Your task to perform on an android device: toggle notification dots Image 0: 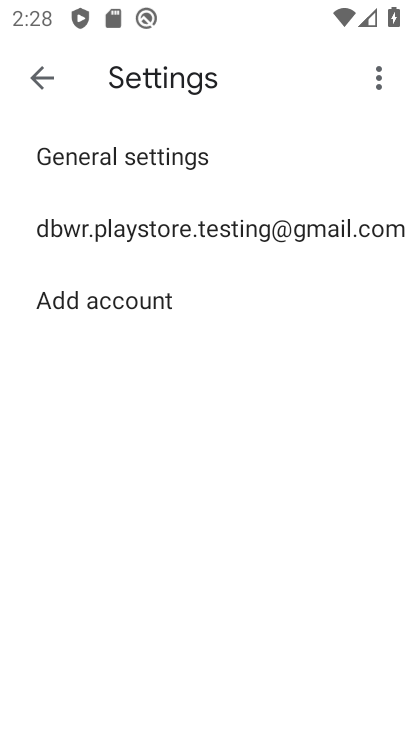
Step 0: press home button
Your task to perform on an android device: toggle notification dots Image 1: 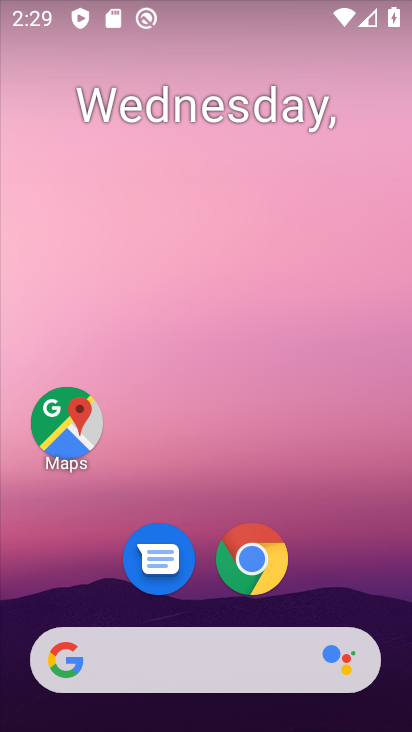
Step 1: drag from (293, 710) to (280, 190)
Your task to perform on an android device: toggle notification dots Image 2: 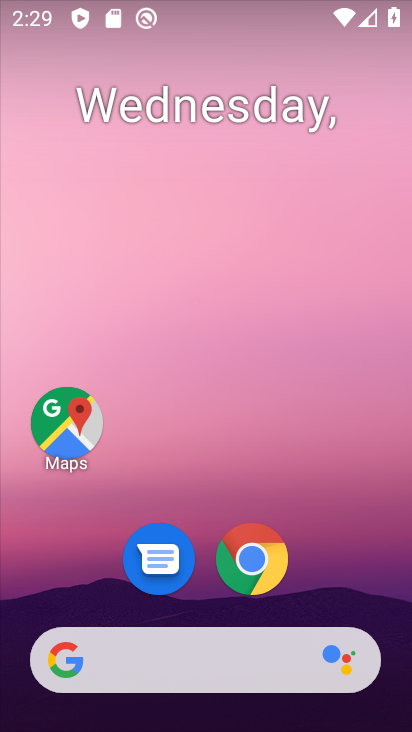
Step 2: drag from (265, 688) to (228, 102)
Your task to perform on an android device: toggle notification dots Image 3: 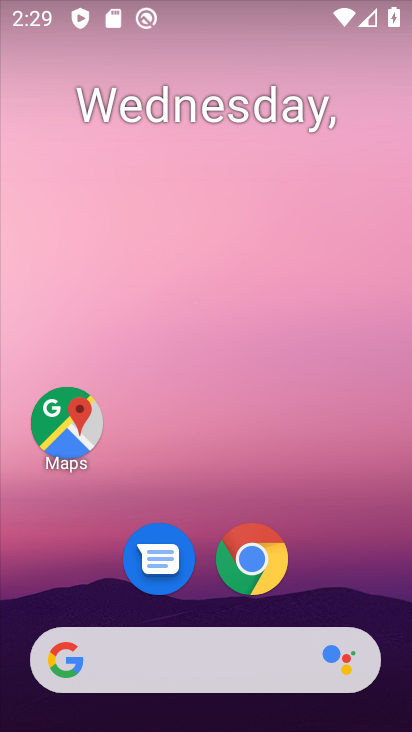
Step 3: drag from (257, 696) to (243, 150)
Your task to perform on an android device: toggle notification dots Image 4: 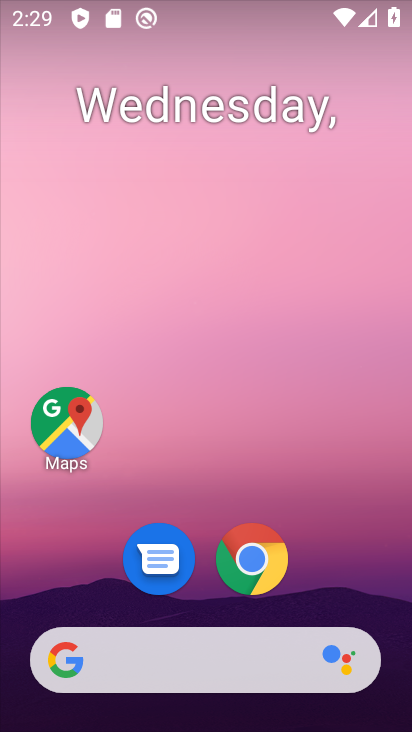
Step 4: drag from (237, 622) to (225, 68)
Your task to perform on an android device: toggle notification dots Image 5: 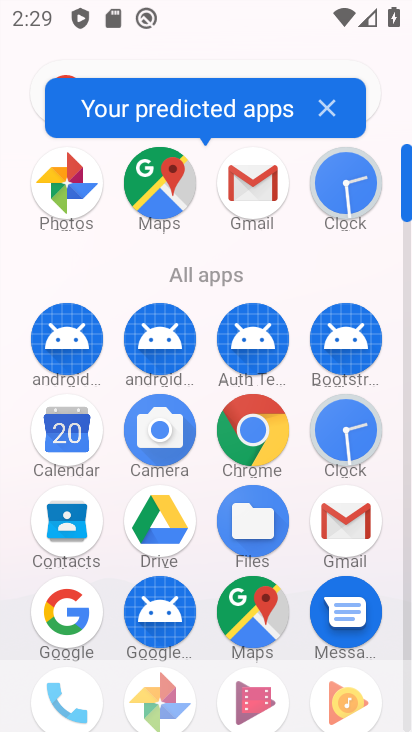
Step 5: drag from (122, 573) to (133, 220)
Your task to perform on an android device: toggle notification dots Image 6: 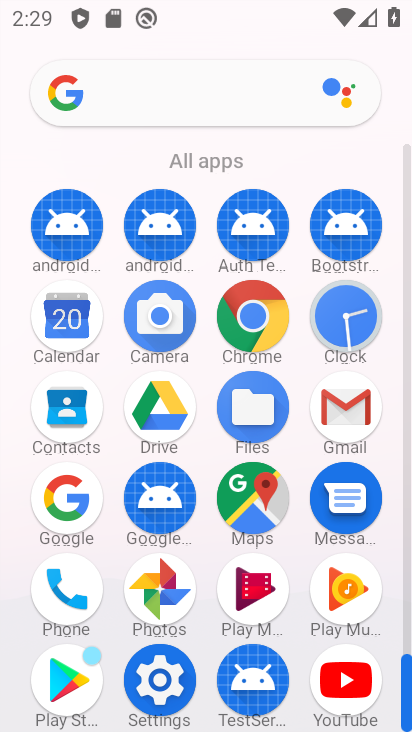
Step 6: click (157, 660)
Your task to perform on an android device: toggle notification dots Image 7: 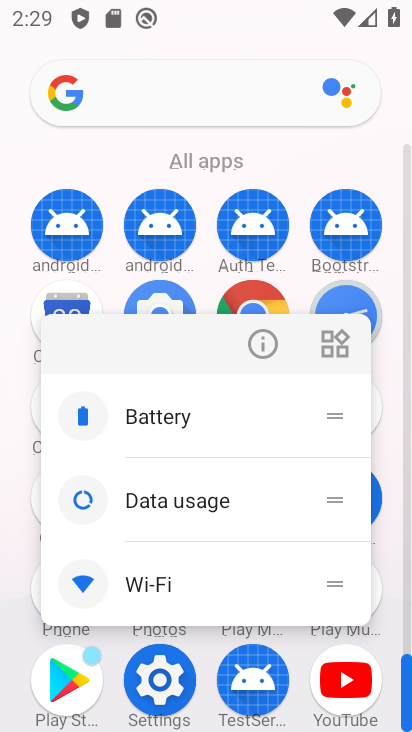
Step 7: click (158, 653)
Your task to perform on an android device: toggle notification dots Image 8: 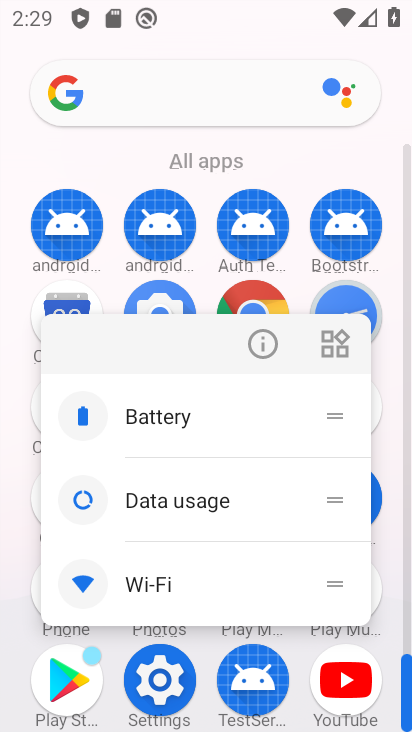
Step 8: click (158, 658)
Your task to perform on an android device: toggle notification dots Image 9: 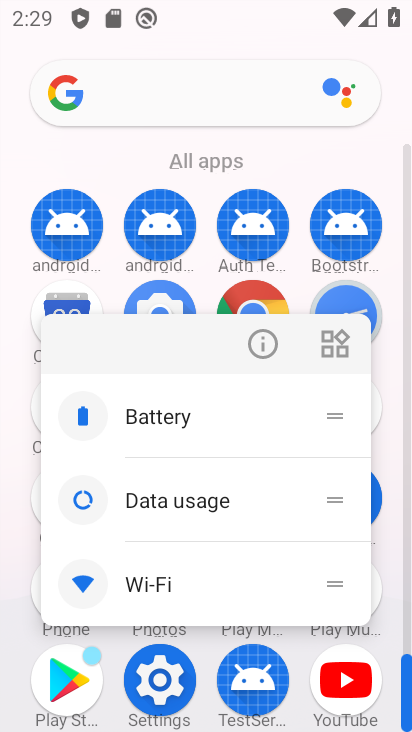
Step 9: click (158, 658)
Your task to perform on an android device: toggle notification dots Image 10: 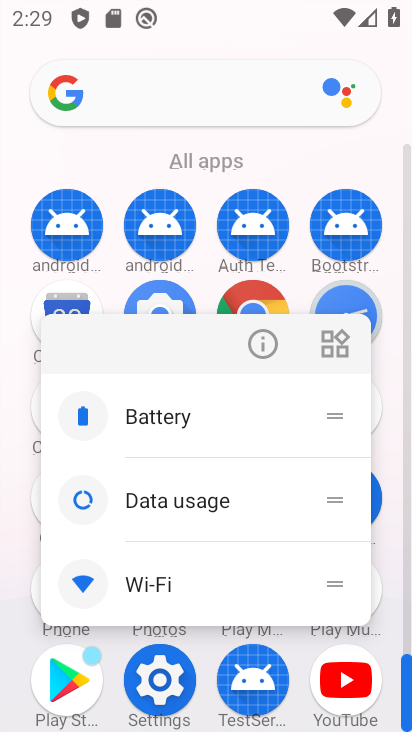
Step 10: click (158, 658)
Your task to perform on an android device: toggle notification dots Image 11: 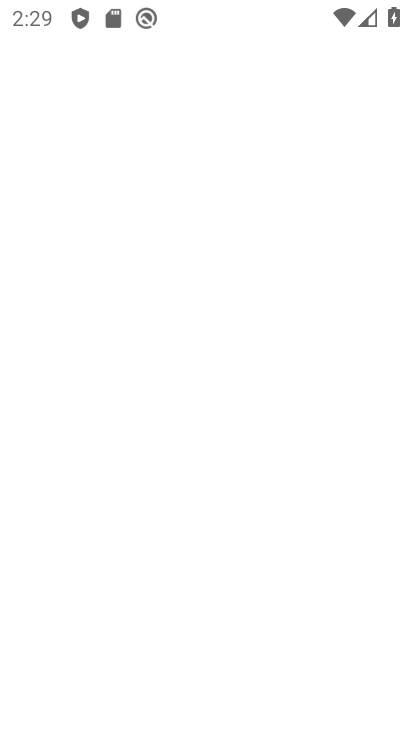
Step 11: drag from (173, 568) to (262, 439)
Your task to perform on an android device: toggle notification dots Image 12: 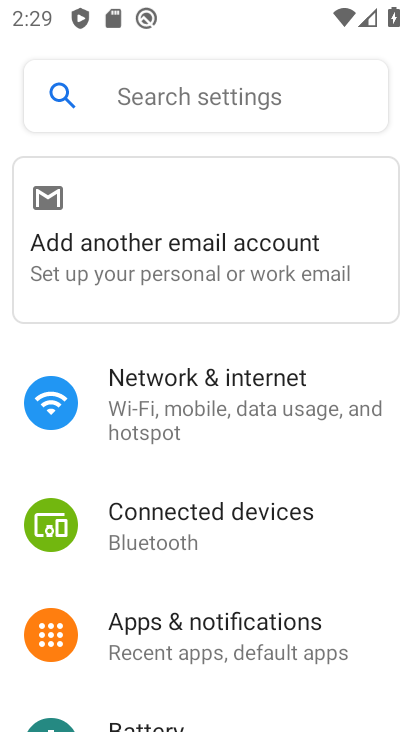
Step 12: click (201, 119)
Your task to perform on an android device: toggle notification dots Image 13: 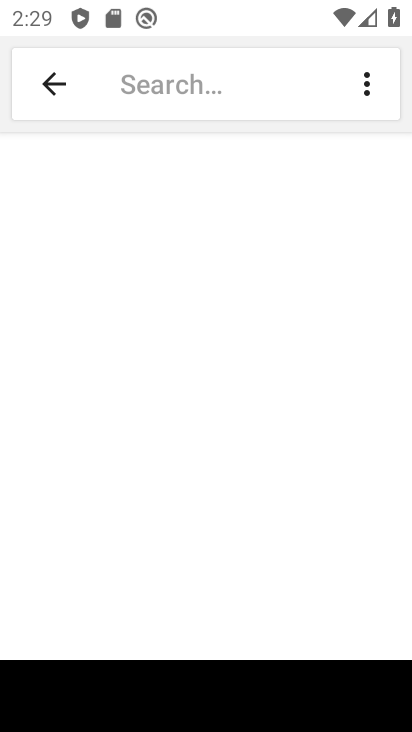
Step 13: drag from (388, 701) to (375, 561)
Your task to perform on an android device: toggle notification dots Image 14: 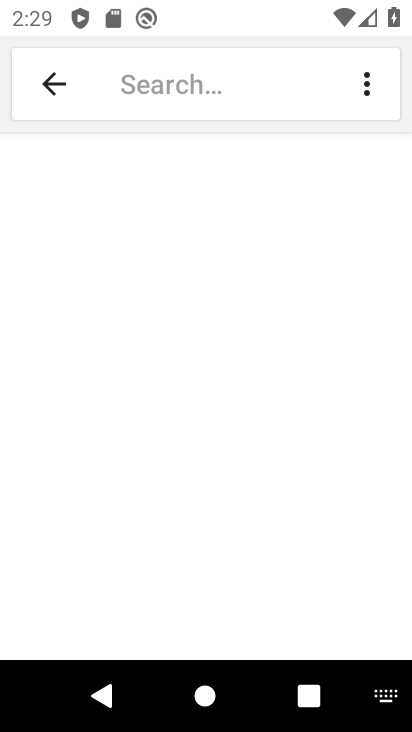
Step 14: click (391, 704)
Your task to perform on an android device: toggle notification dots Image 15: 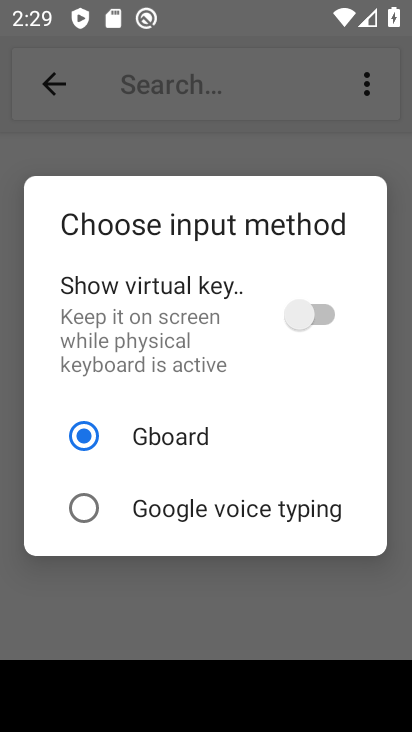
Step 15: click (324, 307)
Your task to perform on an android device: toggle notification dots Image 16: 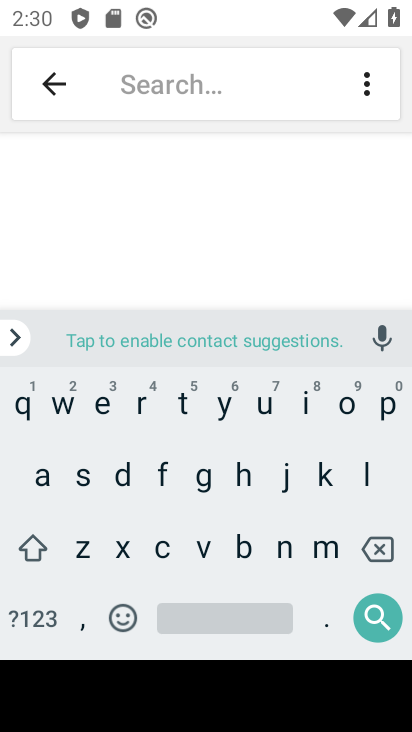
Step 16: click (119, 478)
Your task to perform on an android device: toggle notification dots Image 17: 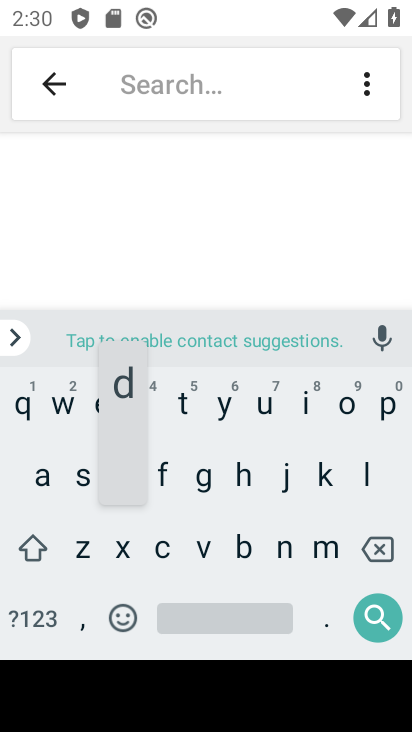
Step 17: click (121, 476)
Your task to perform on an android device: toggle notification dots Image 18: 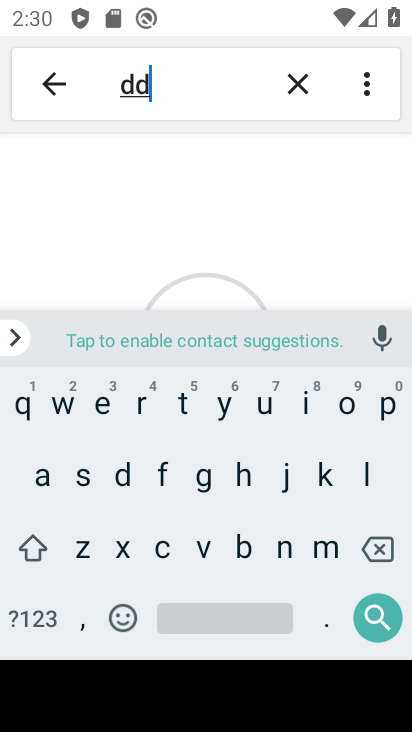
Step 18: click (377, 550)
Your task to perform on an android device: toggle notification dots Image 19: 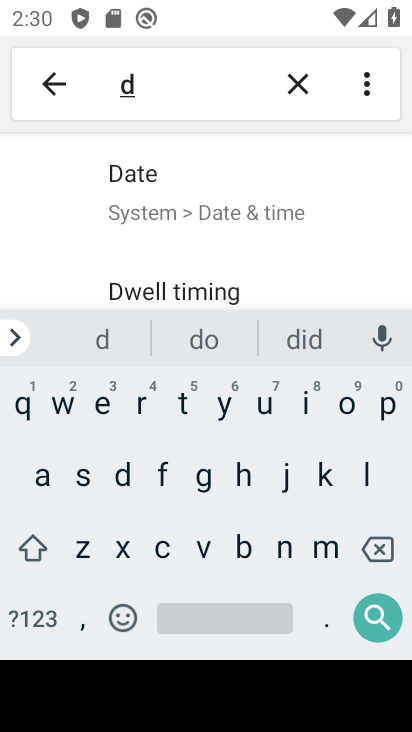
Step 19: click (354, 401)
Your task to perform on an android device: toggle notification dots Image 20: 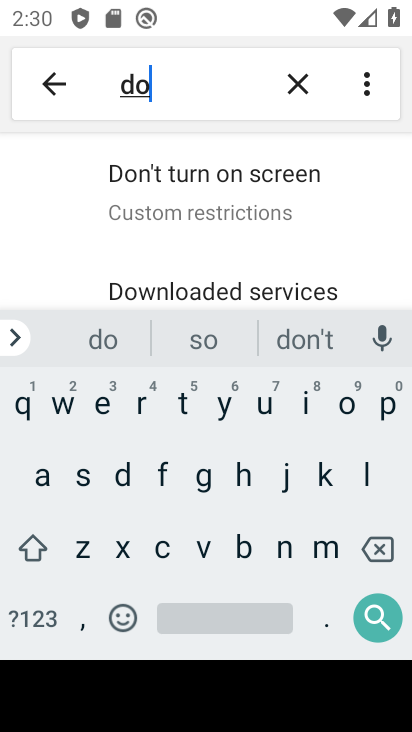
Step 20: click (187, 400)
Your task to perform on an android device: toggle notification dots Image 21: 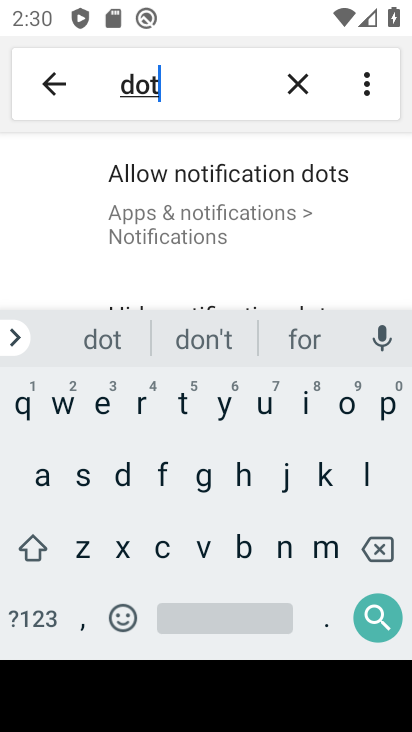
Step 21: click (192, 179)
Your task to perform on an android device: toggle notification dots Image 22: 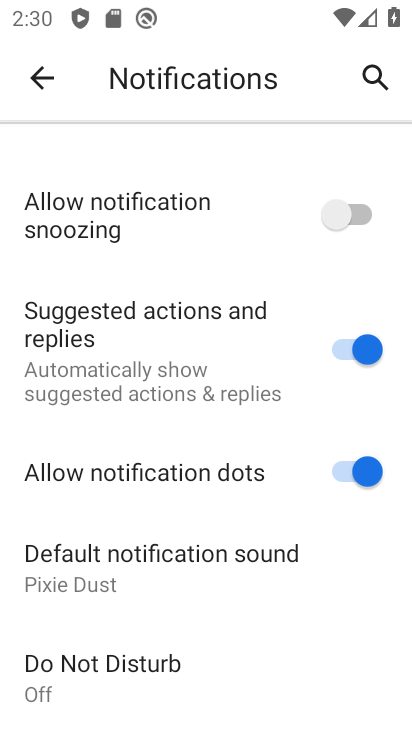
Step 22: click (224, 466)
Your task to perform on an android device: toggle notification dots Image 23: 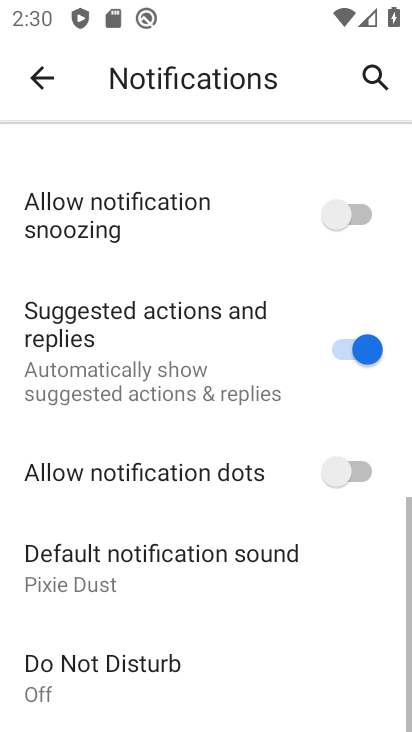
Step 23: click (224, 465)
Your task to perform on an android device: toggle notification dots Image 24: 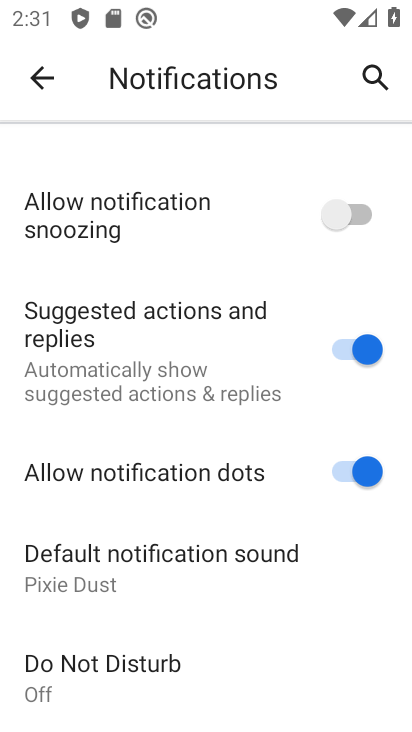
Step 24: task complete